Your task to perform on an android device: Open eBay Image 0: 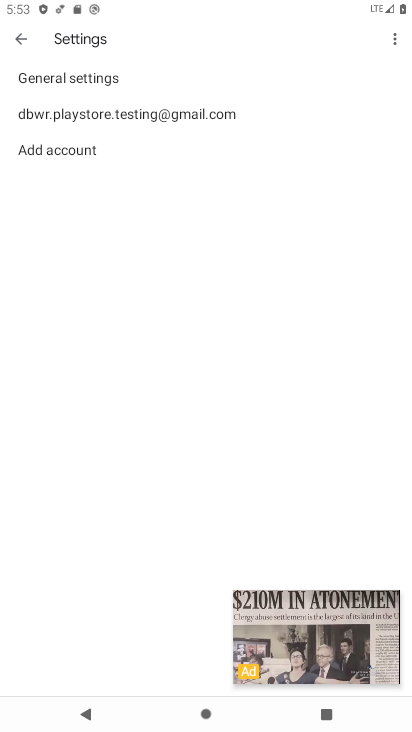
Step 0: click (353, 637)
Your task to perform on an android device: Open eBay Image 1: 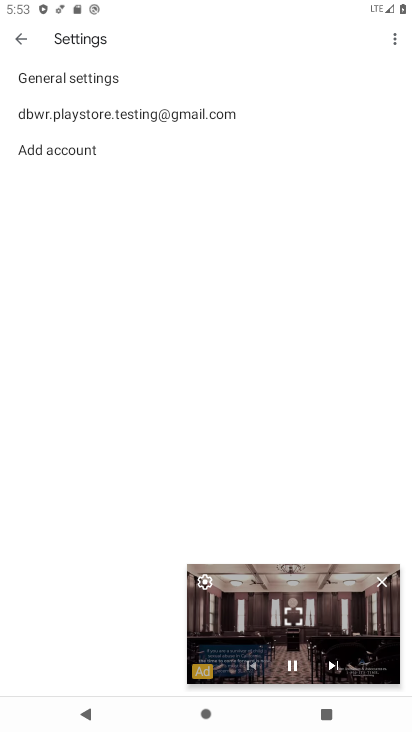
Step 1: click (384, 583)
Your task to perform on an android device: Open eBay Image 2: 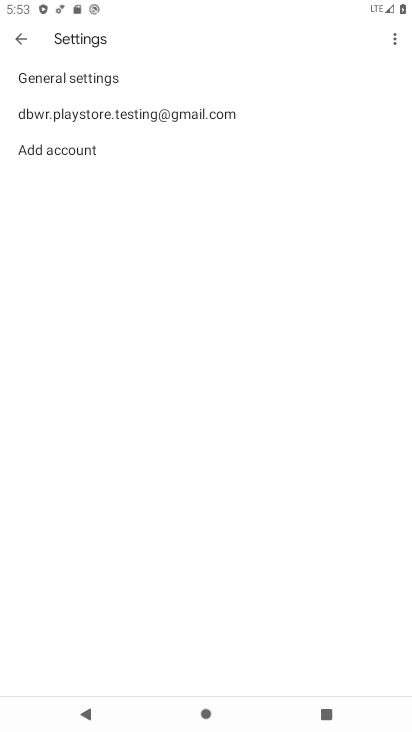
Step 2: press home button
Your task to perform on an android device: Open eBay Image 3: 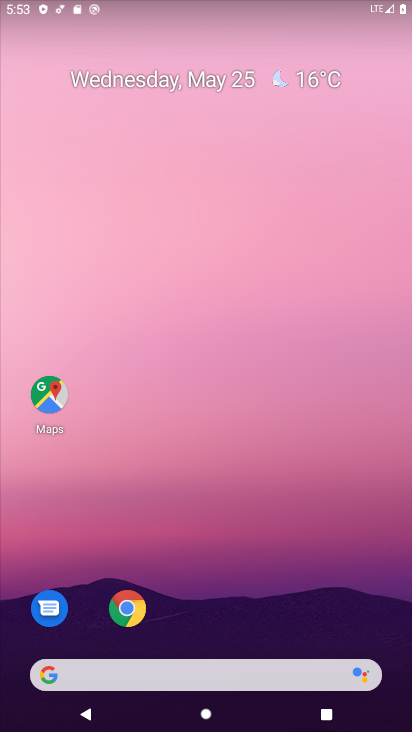
Step 3: drag from (213, 584) to (180, 19)
Your task to perform on an android device: Open eBay Image 4: 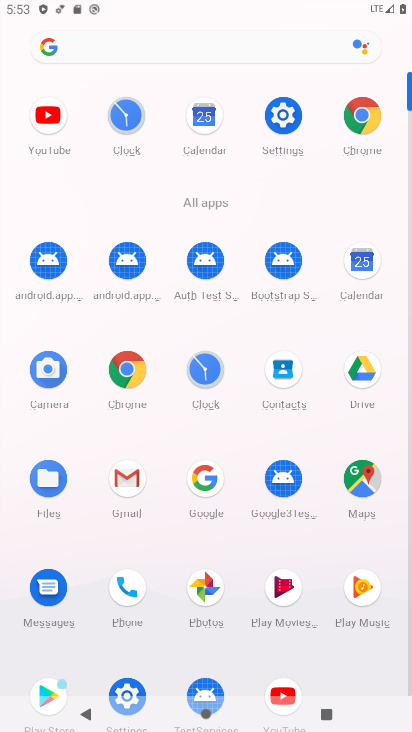
Step 4: click (130, 374)
Your task to perform on an android device: Open eBay Image 5: 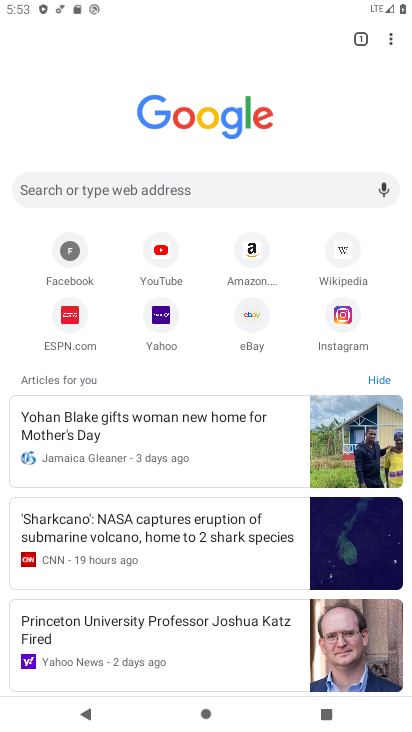
Step 5: click (216, 180)
Your task to perform on an android device: Open eBay Image 6: 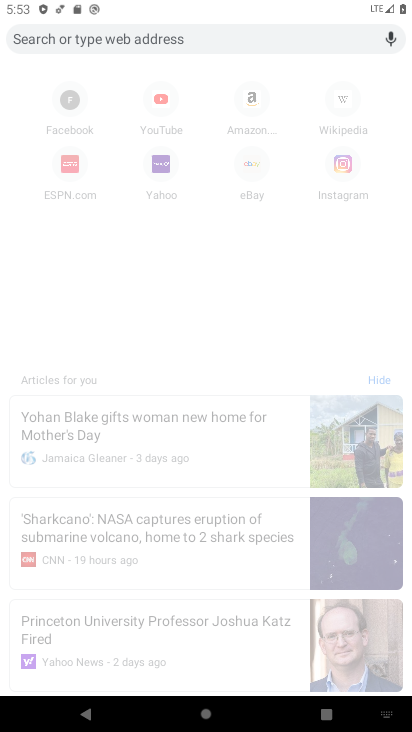
Step 6: type "ebay"
Your task to perform on an android device: Open eBay Image 7: 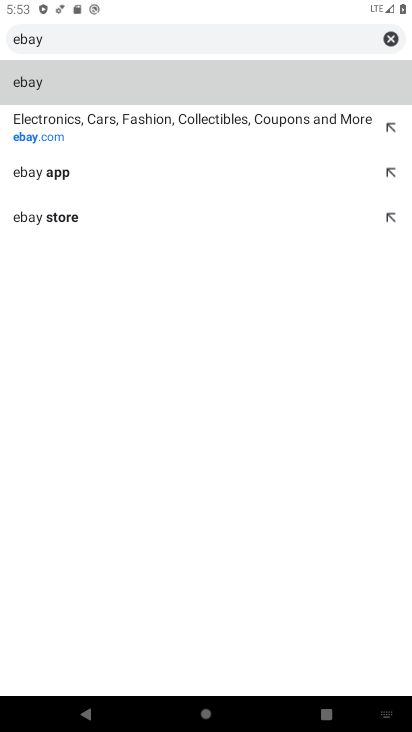
Step 7: click (33, 117)
Your task to perform on an android device: Open eBay Image 8: 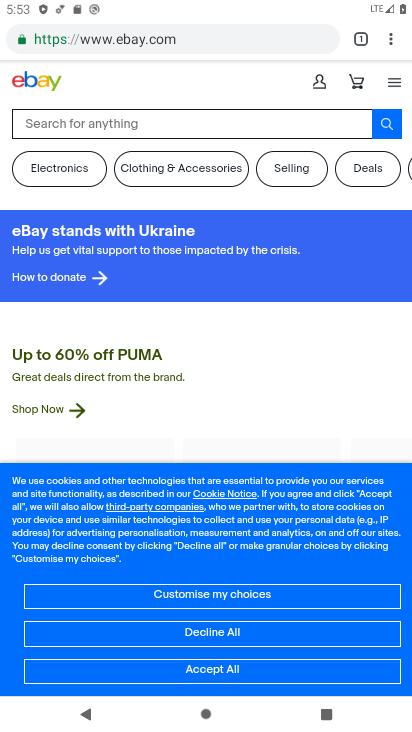
Step 8: task complete